Your task to perform on an android device: turn notification dots off Image 0: 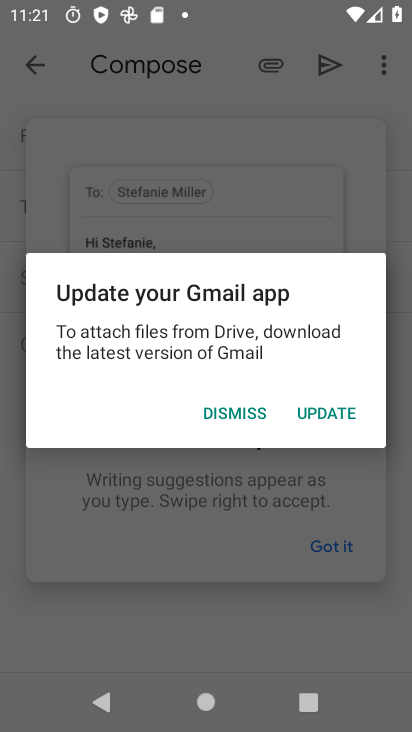
Step 0: press home button
Your task to perform on an android device: turn notification dots off Image 1: 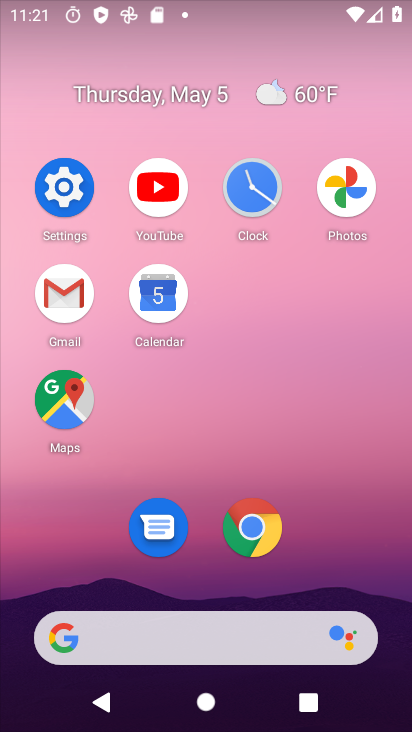
Step 1: click (79, 201)
Your task to perform on an android device: turn notification dots off Image 2: 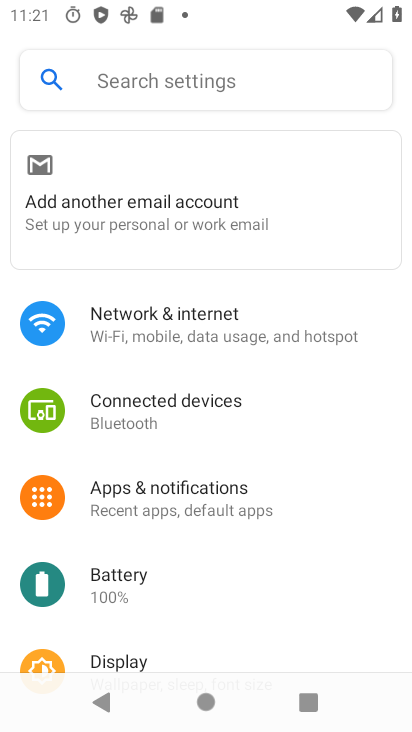
Step 2: click (196, 491)
Your task to perform on an android device: turn notification dots off Image 3: 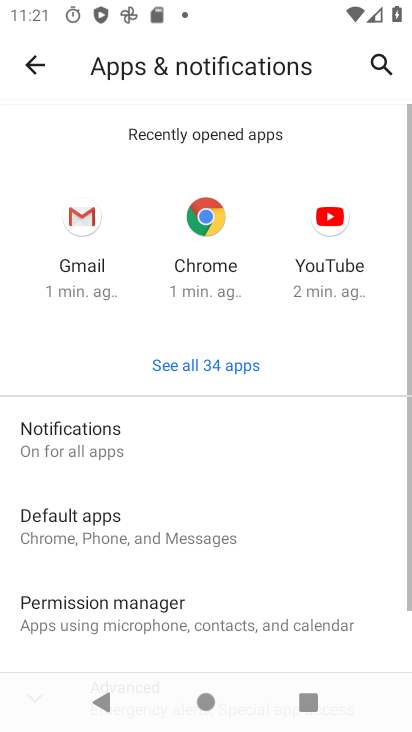
Step 3: click (157, 445)
Your task to perform on an android device: turn notification dots off Image 4: 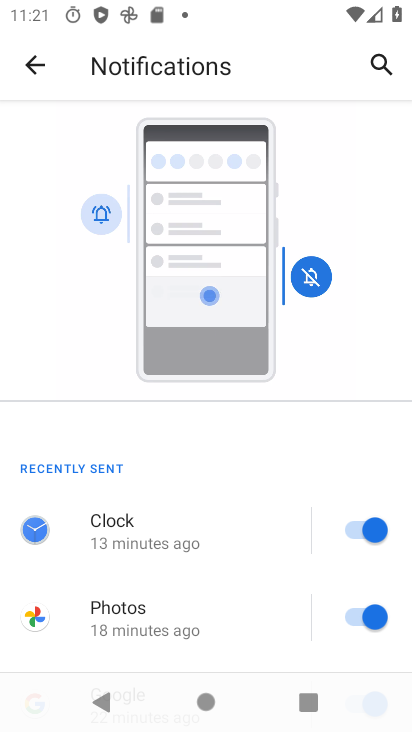
Step 4: drag from (158, 606) to (189, 157)
Your task to perform on an android device: turn notification dots off Image 5: 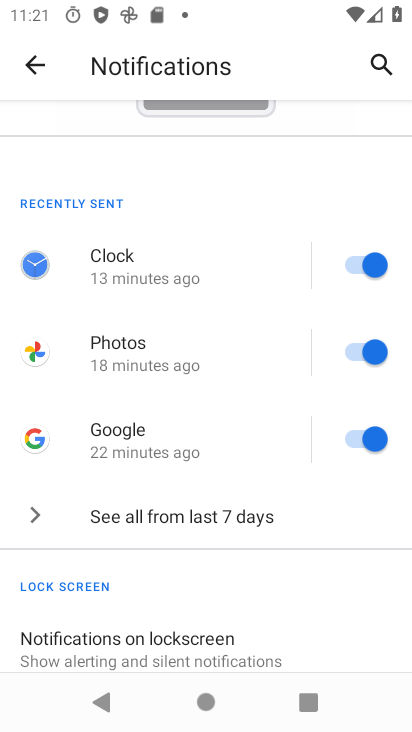
Step 5: drag from (169, 593) to (180, 157)
Your task to perform on an android device: turn notification dots off Image 6: 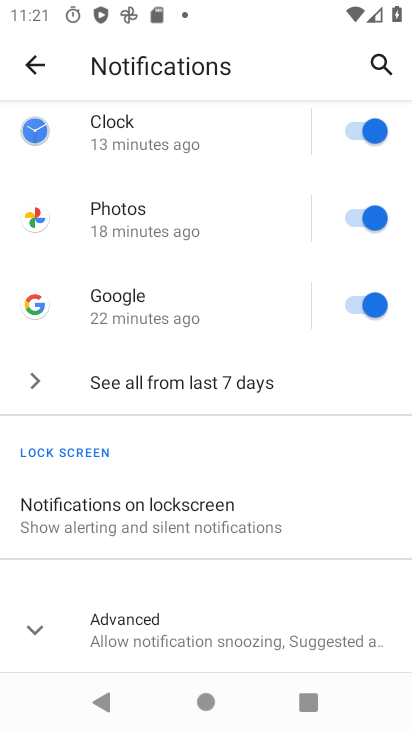
Step 6: click (169, 619)
Your task to perform on an android device: turn notification dots off Image 7: 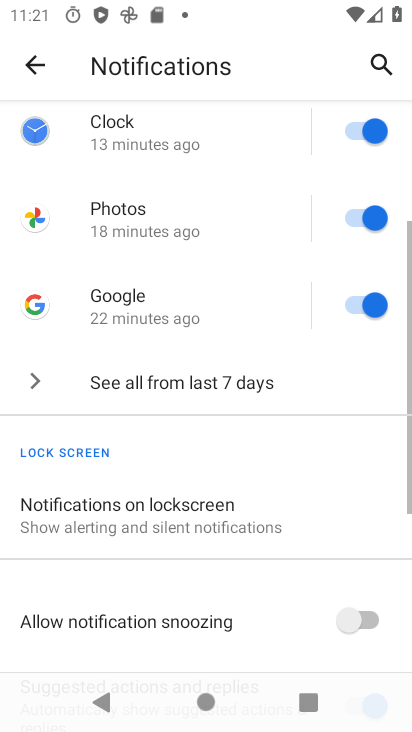
Step 7: drag from (169, 619) to (181, 211)
Your task to perform on an android device: turn notification dots off Image 8: 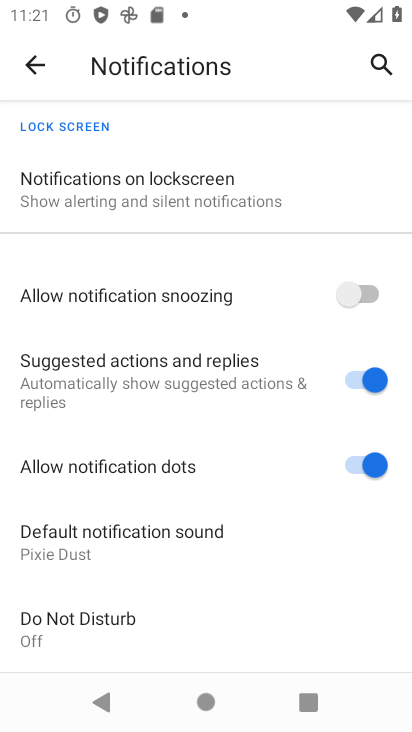
Step 8: click (350, 461)
Your task to perform on an android device: turn notification dots off Image 9: 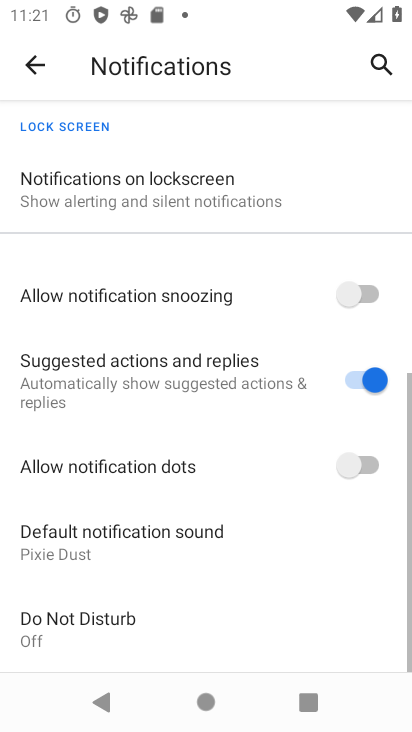
Step 9: task complete